Your task to perform on an android device: Go to internet settings Image 0: 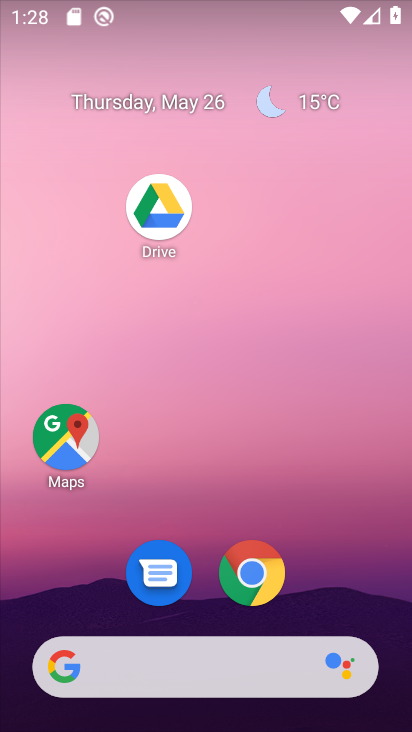
Step 0: drag from (366, 619) to (383, 114)
Your task to perform on an android device: Go to internet settings Image 1: 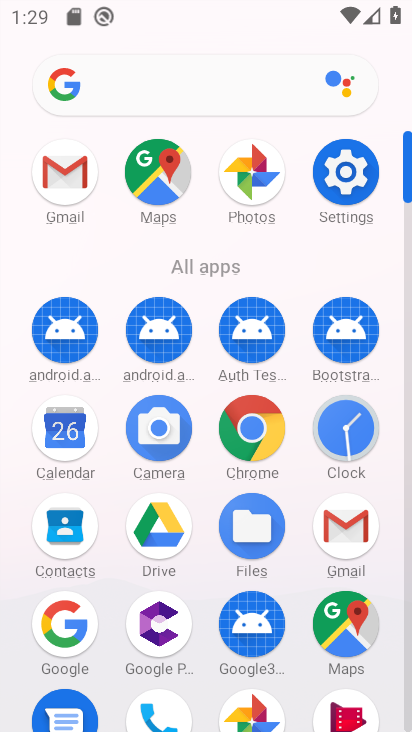
Step 1: click (343, 185)
Your task to perform on an android device: Go to internet settings Image 2: 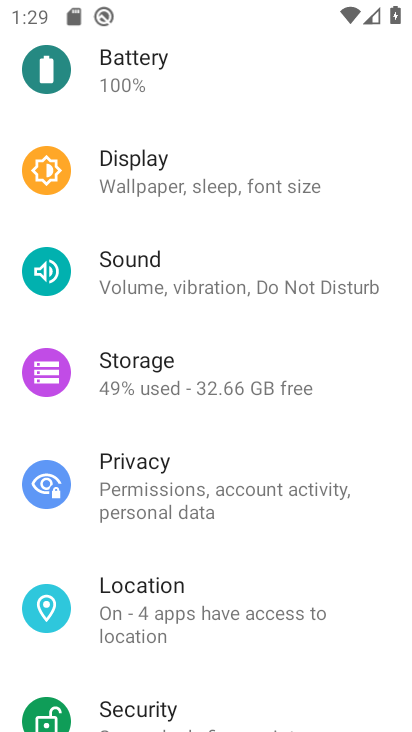
Step 2: drag from (191, 98) to (128, 715)
Your task to perform on an android device: Go to internet settings Image 3: 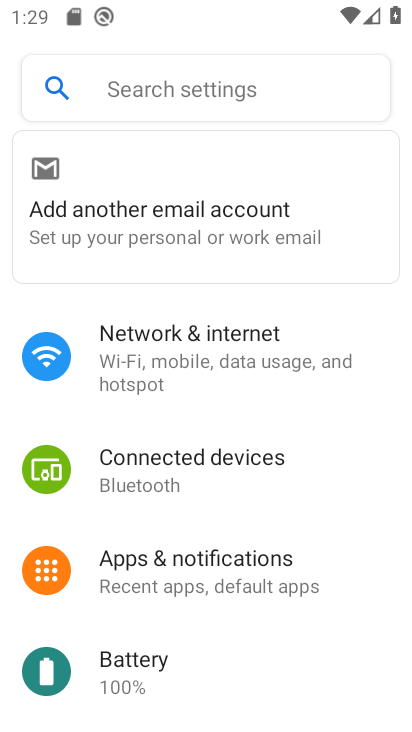
Step 3: click (179, 351)
Your task to perform on an android device: Go to internet settings Image 4: 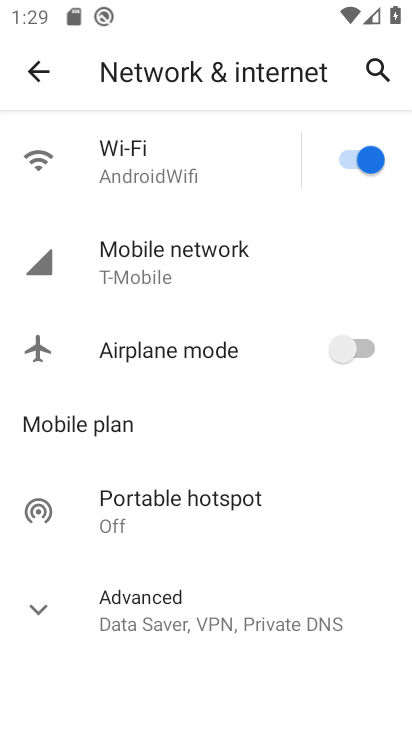
Step 4: task complete